Your task to perform on an android device: What is the speed of a cheetah? Image 0: 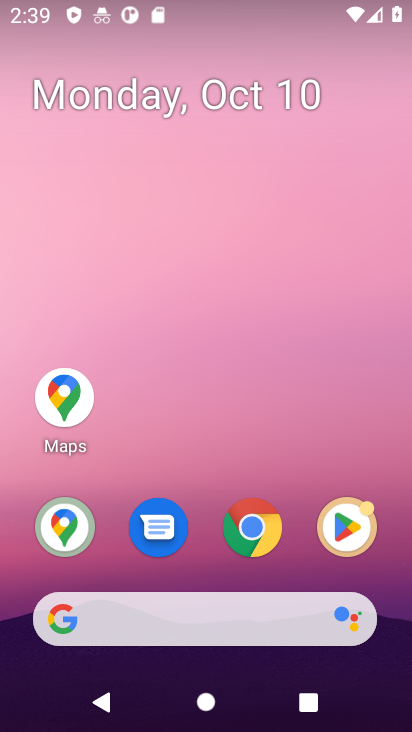
Step 0: click (253, 527)
Your task to perform on an android device: What is the speed of a cheetah? Image 1: 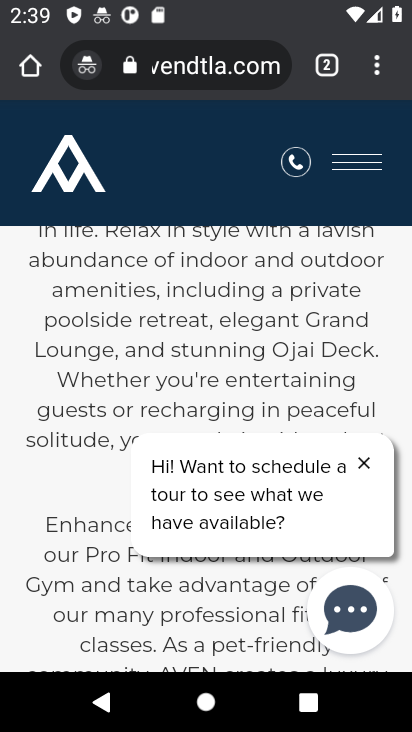
Step 1: click (238, 53)
Your task to perform on an android device: What is the speed of a cheetah? Image 2: 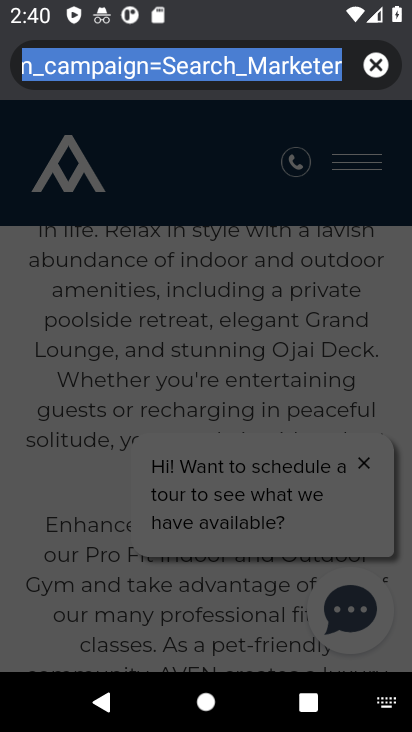
Step 2: click (374, 66)
Your task to perform on an android device: What is the speed of a cheetah? Image 3: 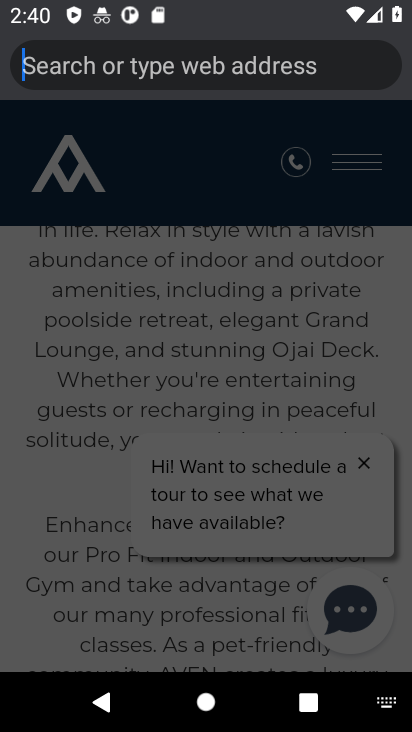
Step 3: type "What is the speed of a cheetah"
Your task to perform on an android device: What is the speed of a cheetah? Image 4: 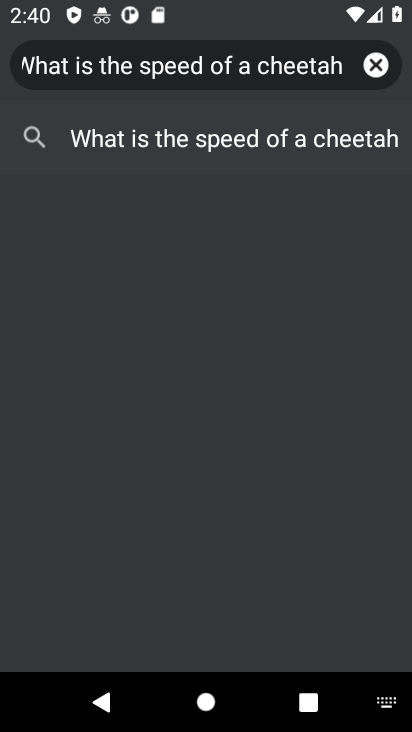
Step 4: click (328, 143)
Your task to perform on an android device: What is the speed of a cheetah? Image 5: 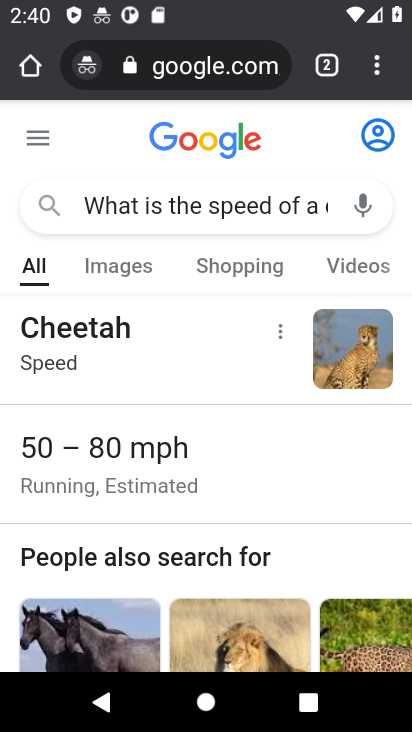
Step 5: task complete